Your task to perform on an android device: Open Yahoo.com Image 0: 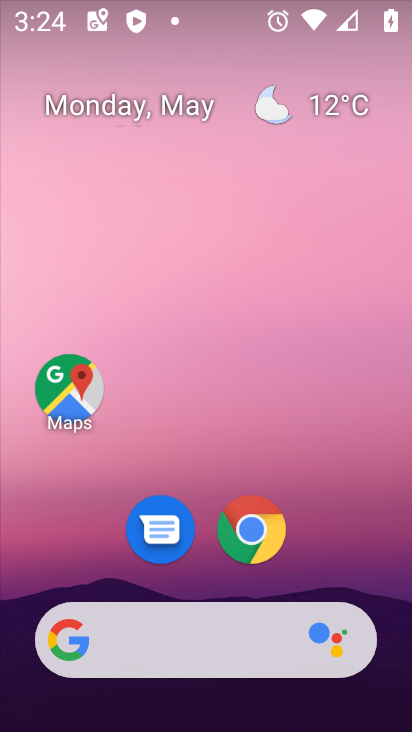
Step 0: click (254, 543)
Your task to perform on an android device: Open Yahoo.com Image 1: 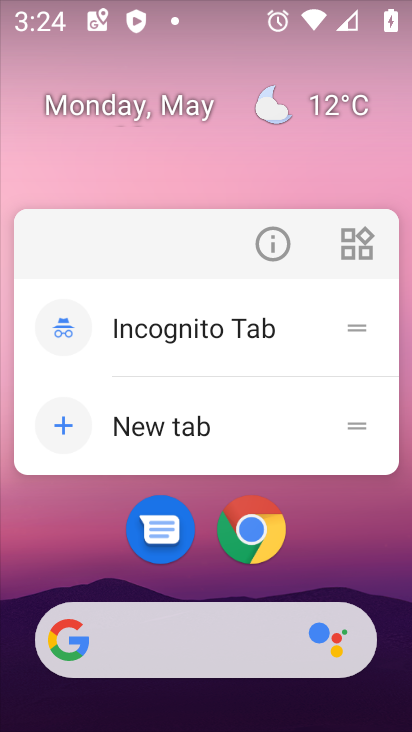
Step 1: click (249, 518)
Your task to perform on an android device: Open Yahoo.com Image 2: 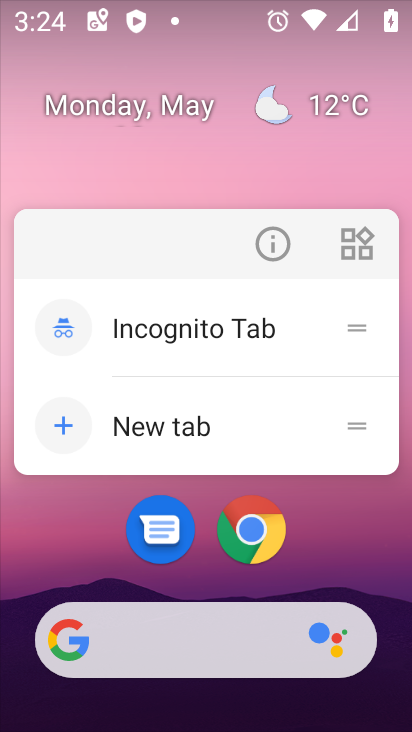
Step 2: click (249, 522)
Your task to perform on an android device: Open Yahoo.com Image 3: 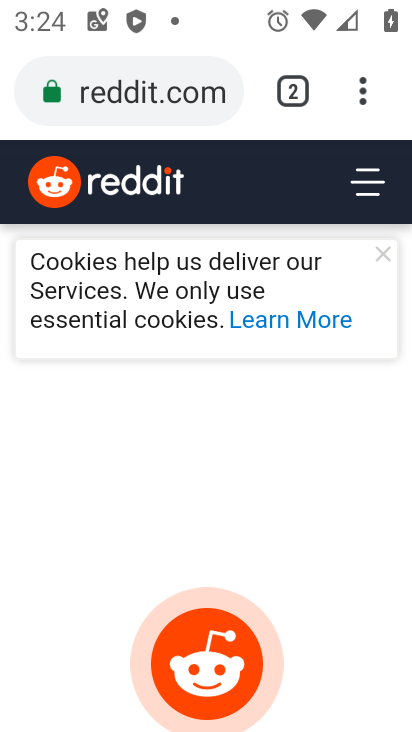
Step 3: click (159, 94)
Your task to perform on an android device: Open Yahoo.com Image 4: 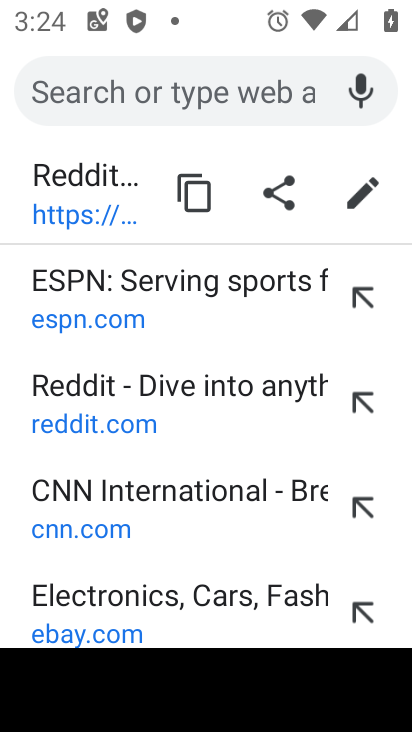
Step 4: type "yahoo.com"
Your task to perform on an android device: Open Yahoo.com Image 5: 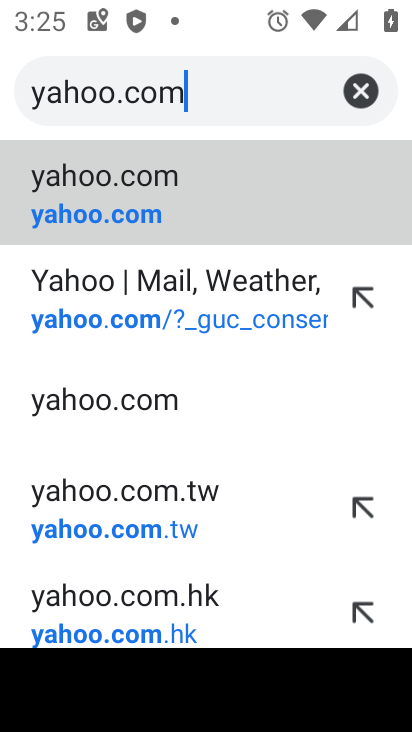
Step 5: click (114, 199)
Your task to perform on an android device: Open Yahoo.com Image 6: 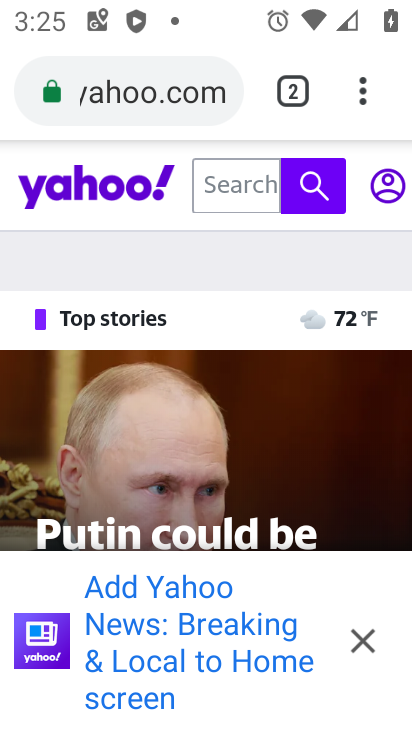
Step 6: task complete